Your task to perform on an android device: add a label to a message in the gmail app Image 0: 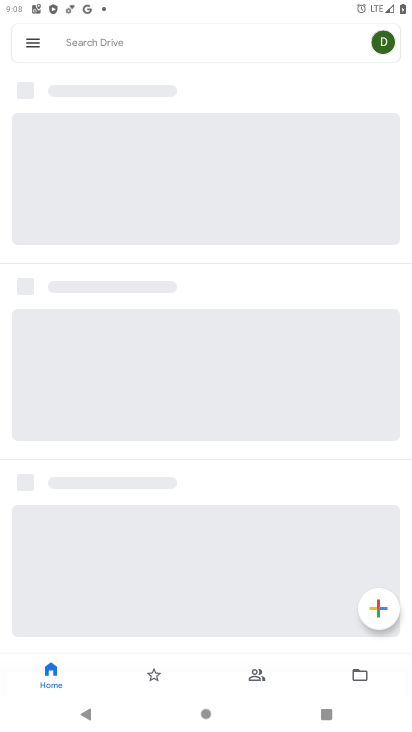
Step 0: press home button
Your task to perform on an android device: add a label to a message in the gmail app Image 1: 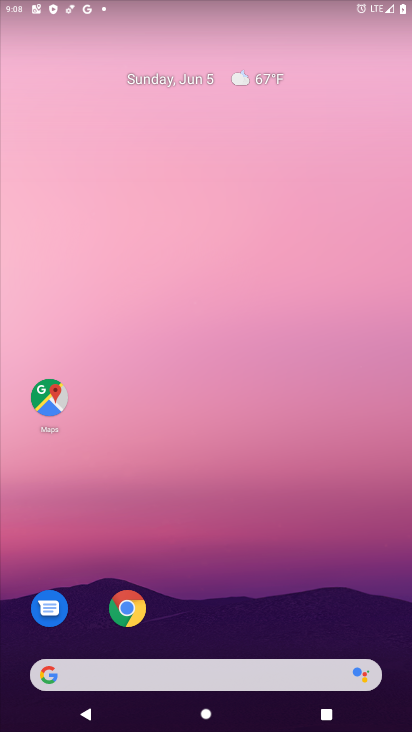
Step 1: drag from (28, 567) to (264, 4)
Your task to perform on an android device: add a label to a message in the gmail app Image 2: 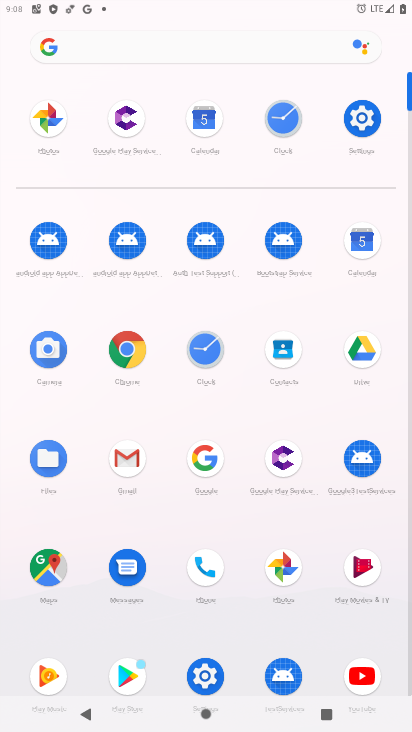
Step 2: click (129, 456)
Your task to perform on an android device: add a label to a message in the gmail app Image 3: 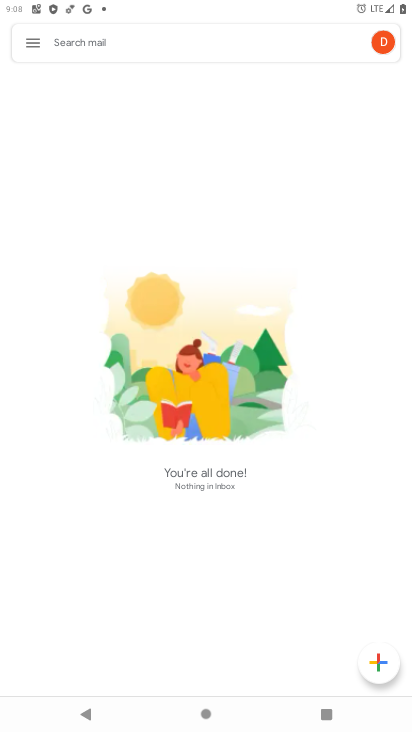
Step 3: click (41, 45)
Your task to perform on an android device: add a label to a message in the gmail app Image 4: 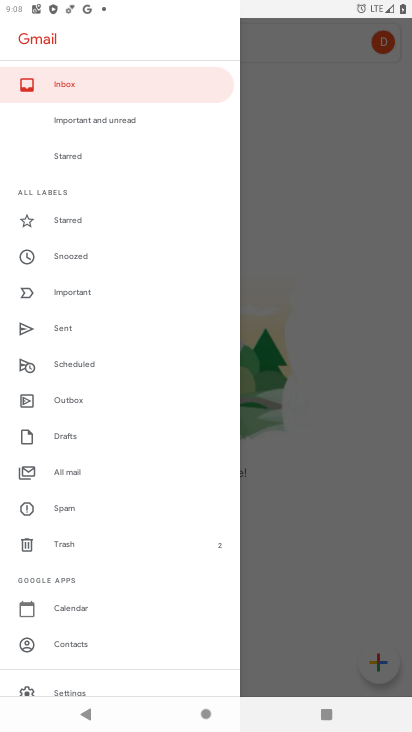
Step 4: click (45, 483)
Your task to perform on an android device: add a label to a message in the gmail app Image 5: 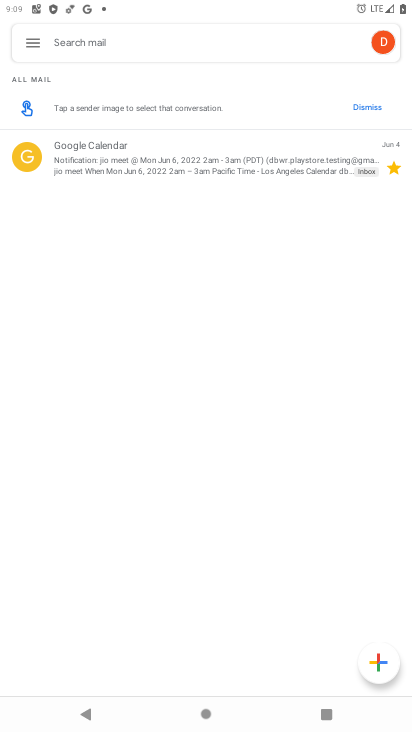
Step 5: task complete